Your task to perform on an android device: Open the web browser Image 0: 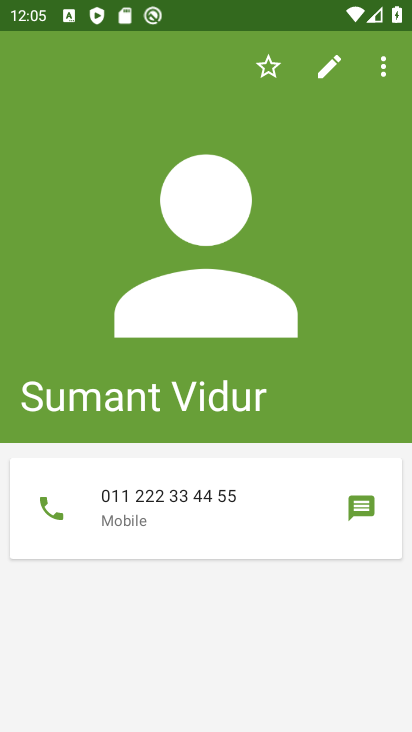
Step 0: press home button
Your task to perform on an android device: Open the web browser Image 1: 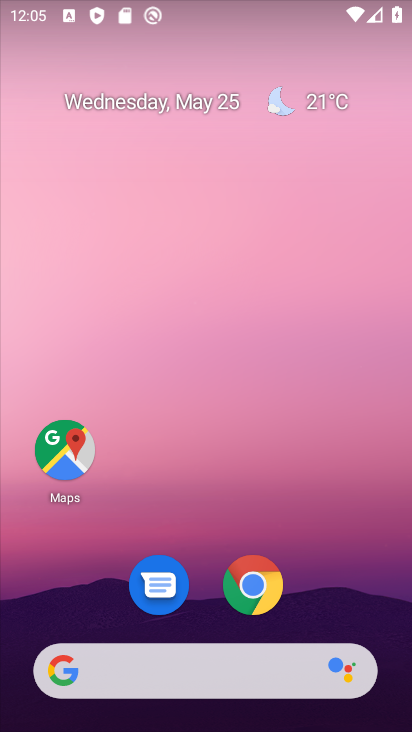
Step 1: drag from (223, 524) to (271, 20)
Your task to perform on an android device: Open the web browser Image 2: 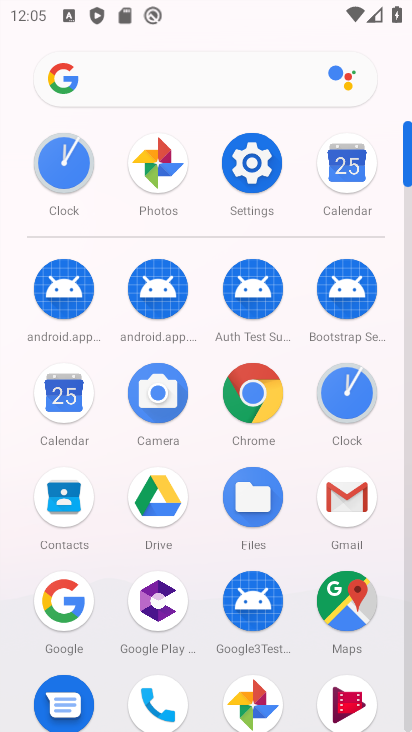
Step 2: click (249, 382)
Your task to perform on an android device: Open the web browser Image 3: 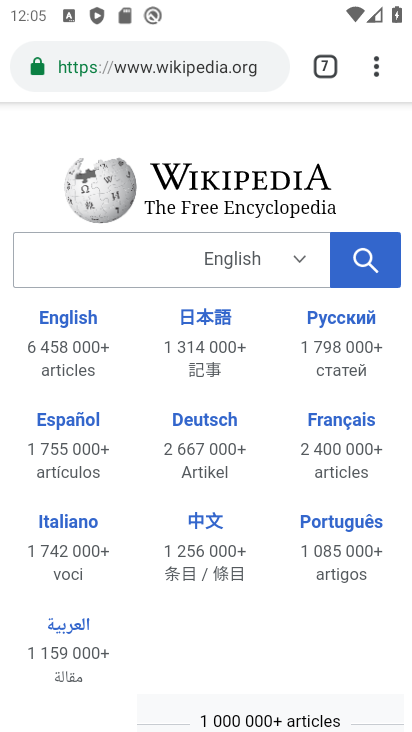
Step 3: click (373, 71)
Your task to perform on an android device: Open the web browser Image 4: 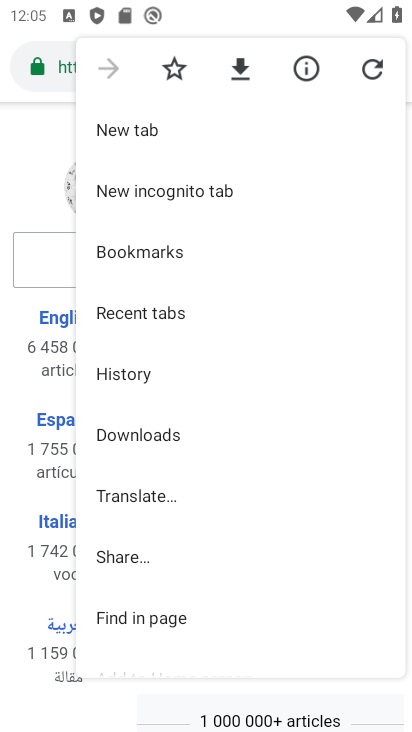
Step 4: click (274, 130)
Your task to perform on an android device: Open the web browser Image 5: 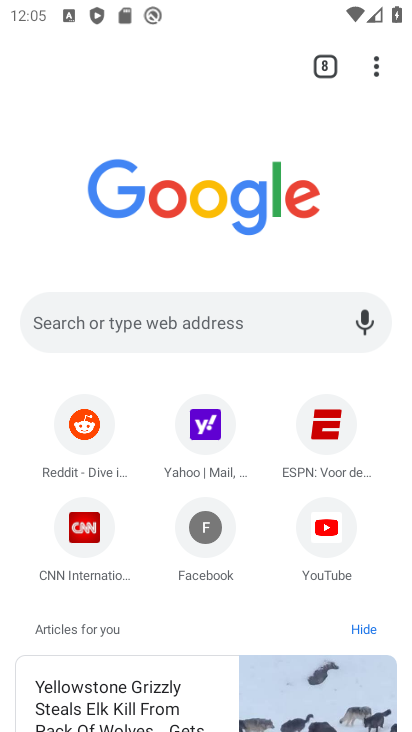
Step 5: task complete